Your task to perform on an android device: Open maps Image 0: 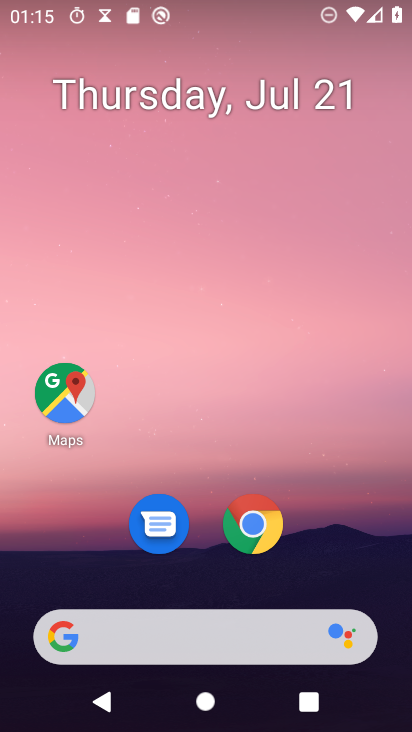
Step 0: click (56, 397)
Your task to perform on an android device: Open maps Image 1: 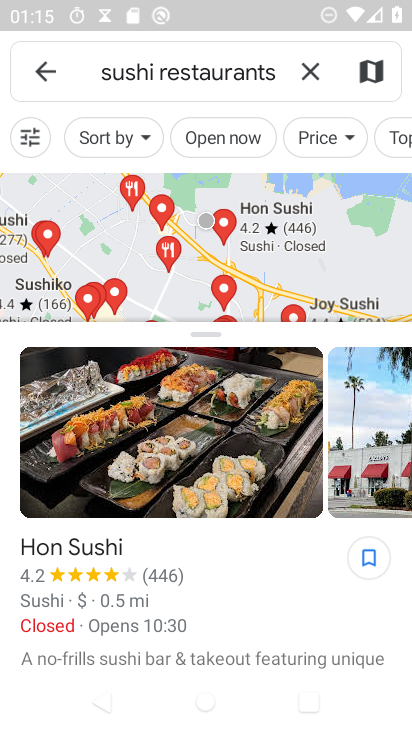
Step 1: click (49, 72)
Your task to perform on an android device: Open maps Image 2: 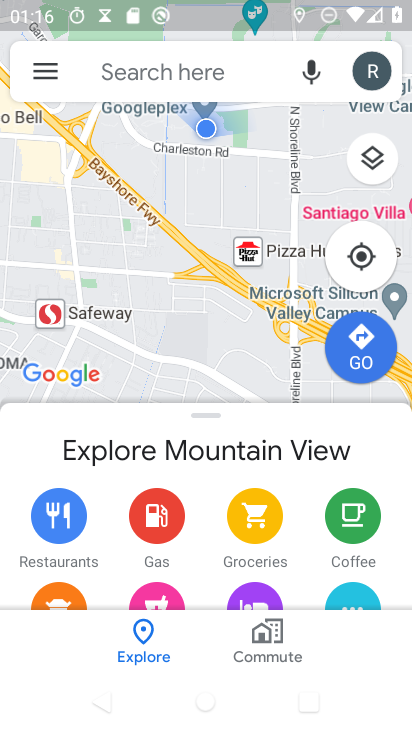
Step 2: task complete